Your task to perform on an android device: turn on airplane mode Image 0: 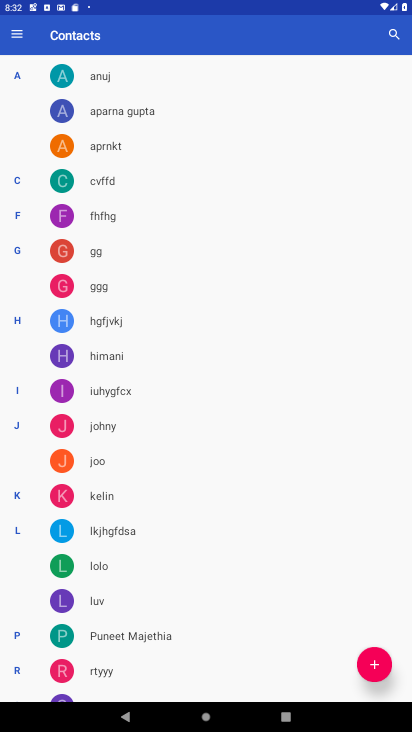
Step 0: press home button
Your task to perform on an android device: turn on airplane mode Image 1: 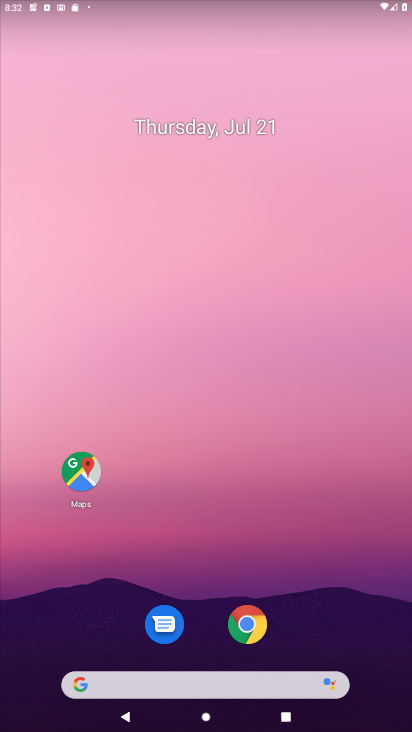
Step 1: drag from (372, 0) to (281, 580)
Your task to perform on an android device: turn on airplane mode Image 2: 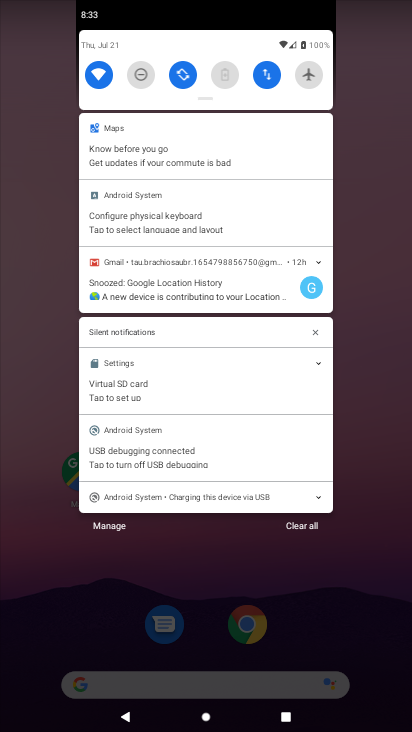
Step 2: click (306, 82)
Your task to perform on an android device: turn on airplane mode Image 3: 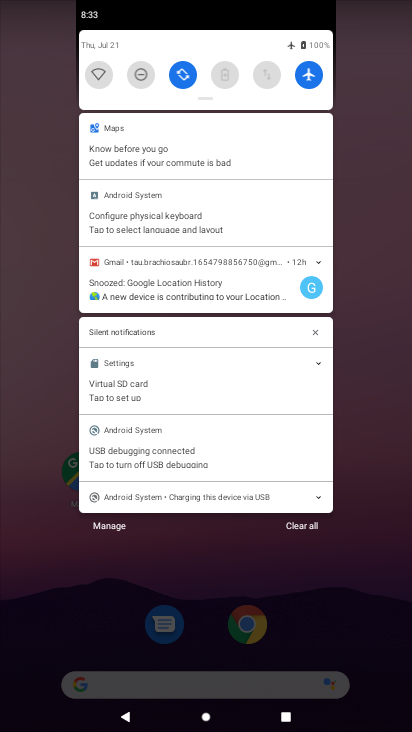
Step 3: task complete